Your task to perform on an android device: turn off wifi Image 0: 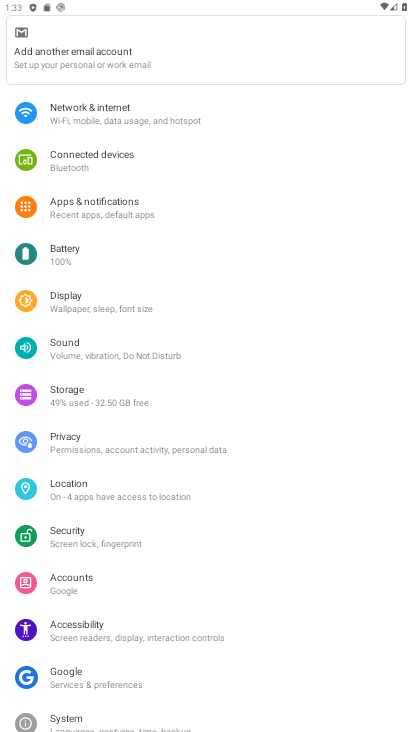
Step 0: press home button
Your task to perform on an android device: turn off wifi Image 1: 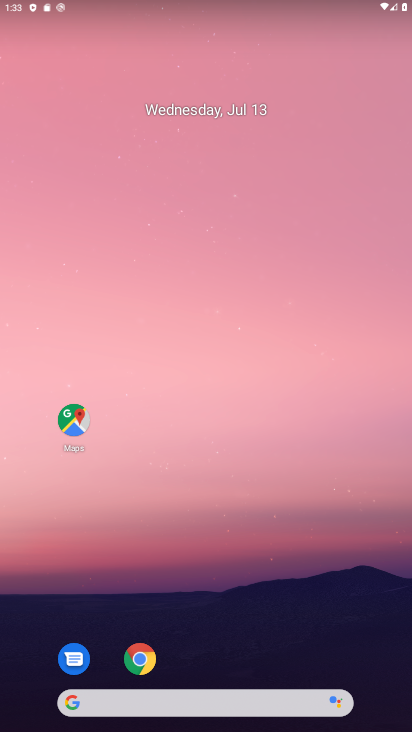
Step 1: drag from (376, 662) to (335, 123)
Your task to perform on an android device: turn off wifi Image 2: 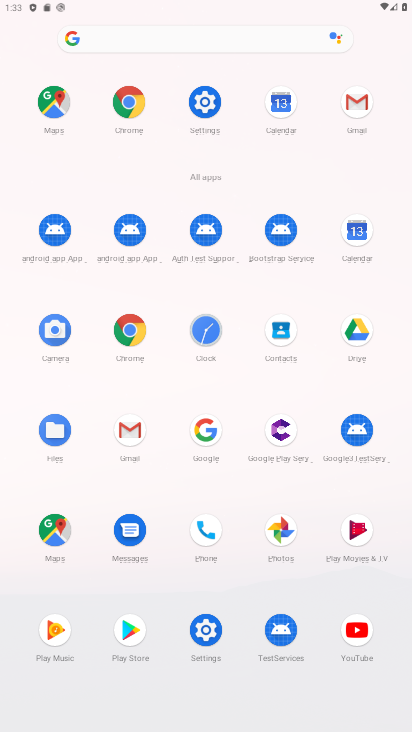
Step 2: click (205, 633)
Your task to perform on an android device: turn off wifi Image 3: 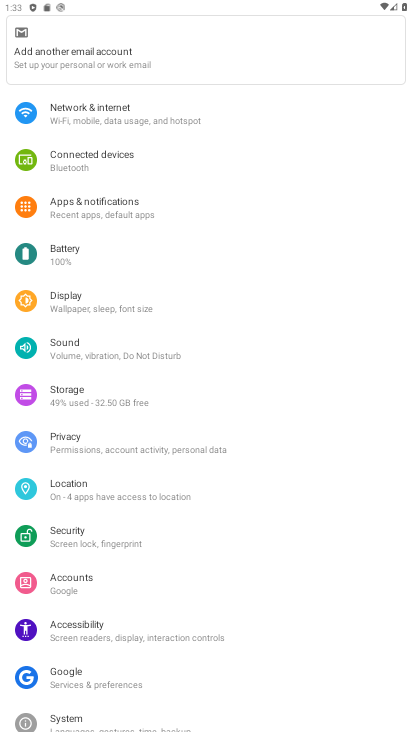
Step 3: click (84, 111)
Your task to perform on an android device: turn off wifi Image 4: 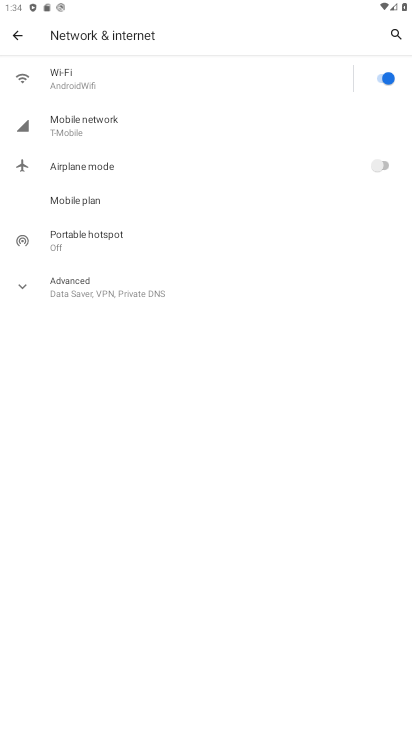
Step 4: click (380, 77)
Your task to perform on an android device: turn off wifi Image 5: 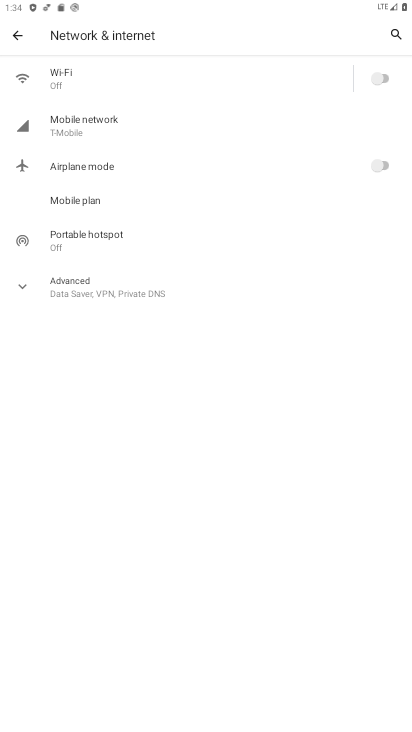
Step 5: task complete